Your task to perform on an android device: turn off improve location accuracy Image 0: 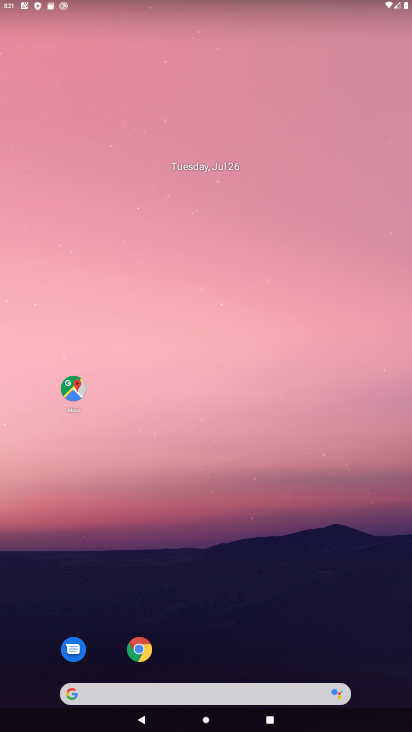
Step 0: drag from (186, 614) to (184, 46)
Your task to perform on an android device: turn off improve location accuracy Image 1: 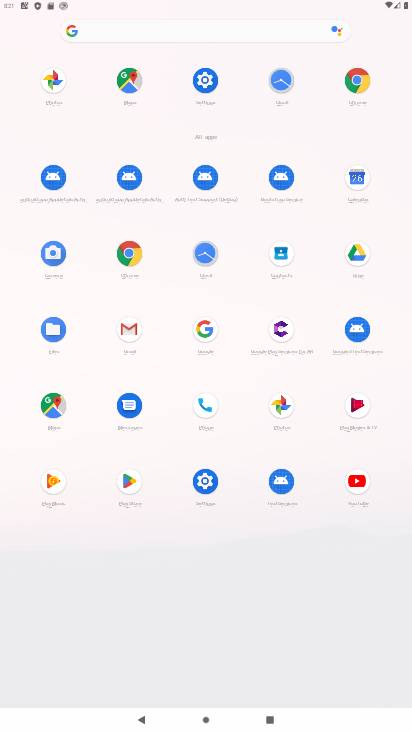
Step 1: click (218, 89)
Your task to perform on an android device: turn off improve location accuracy Image 2: 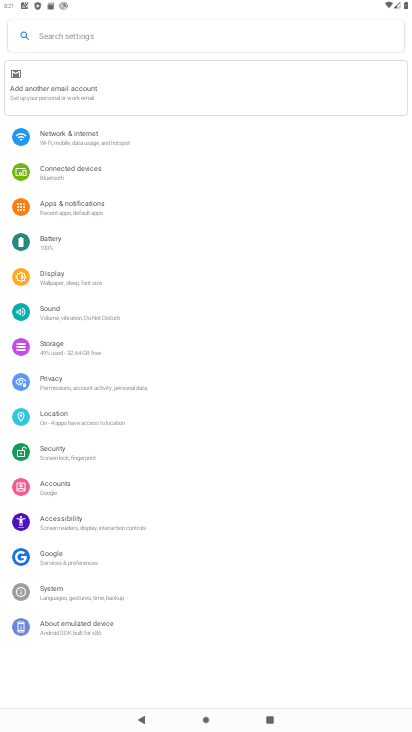
Step 2: click (87, 414)
Your task to perform on an android device: turn off improve location accuracy Image 3: 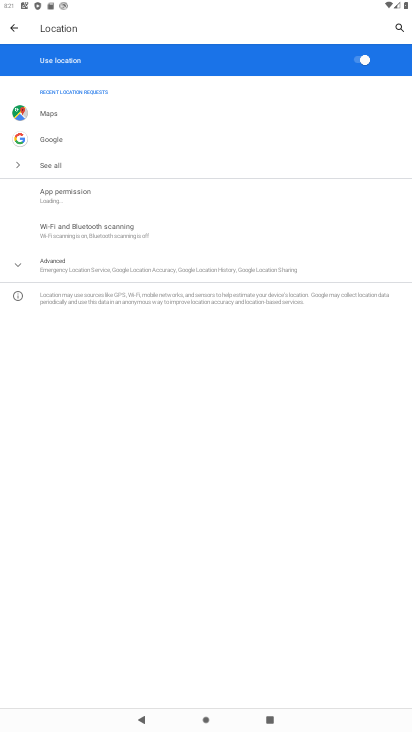
Step 3: click (127, 271)
Your task to perform on an android device: turn off improve location accuracy Image 4: 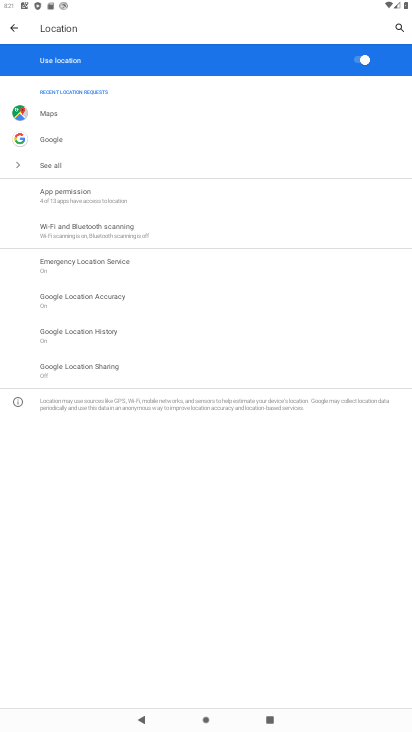
Step 4: click (127, 305)
Your task to perform on an android device: turn off improve location accuracy Image 5: 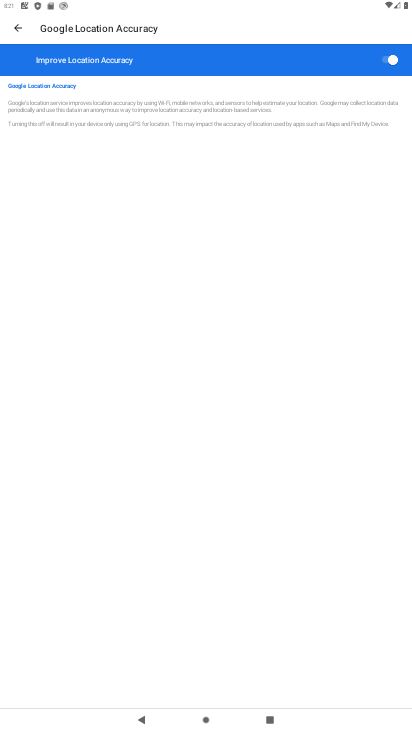
Step 5: click (392, 58)
Your task to perform on an android device: turn off improve location accuracy Image 6: 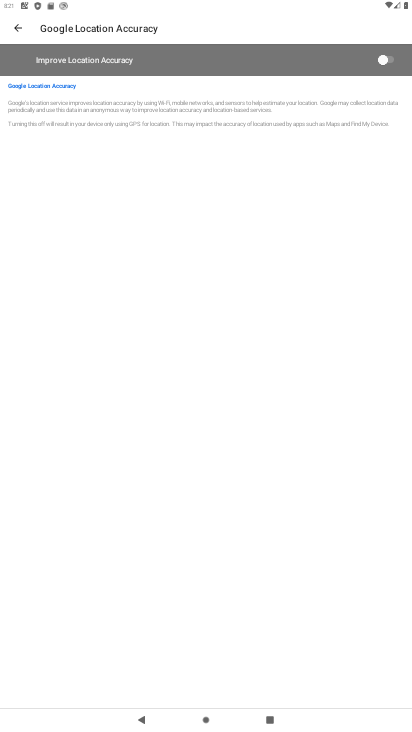
Step 6: task complete